Your task to perform on an android device: allow cookies in the chrome app Image 0: 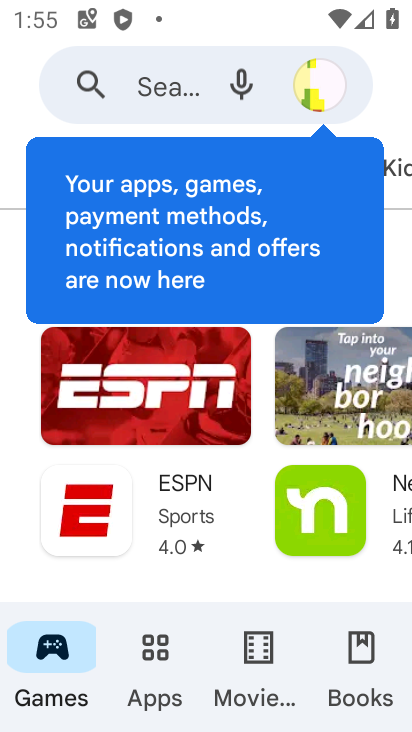
Step 0: press home button
Your task to perform on an android device: allow cookies in the chrome app Image 1: 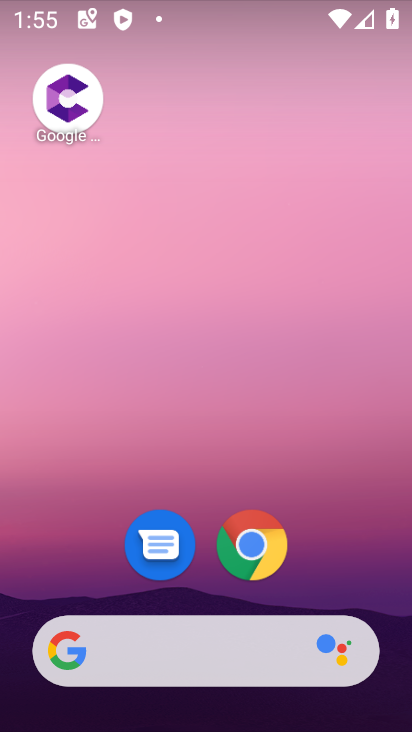
Step 1: click (251, 542)
Your task to perform on an android device: allow cookies in the chrome app Image 2: 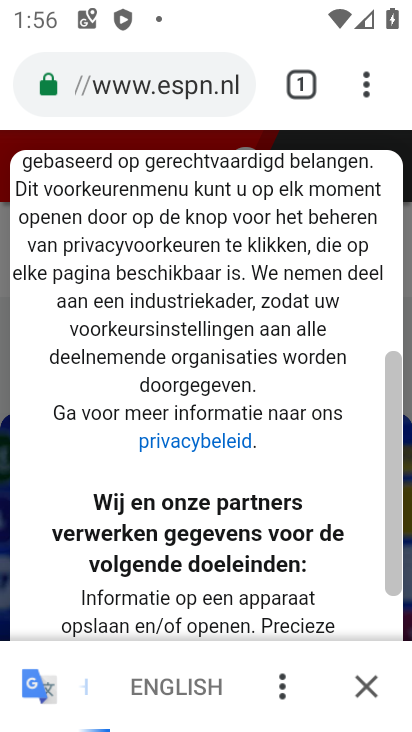
Step 2: click (361, 85)
Your task to perform on an android device: allow cookies in the chrome app Image 3: 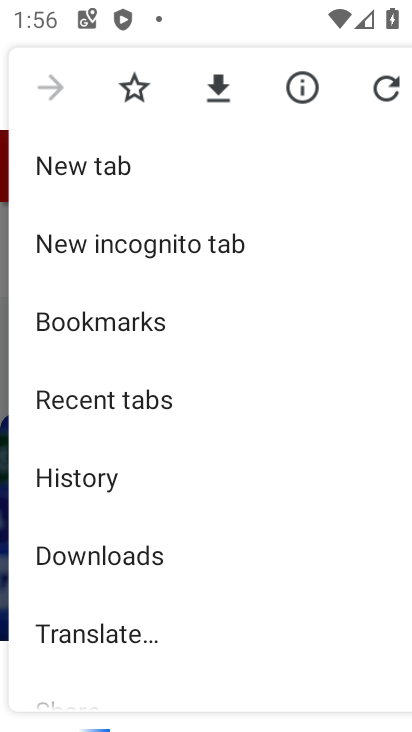
Step 3: drag from (127, 589) to (198, 164)
Your task to perform on an android device: allow cookies in the chrome app Image 4: 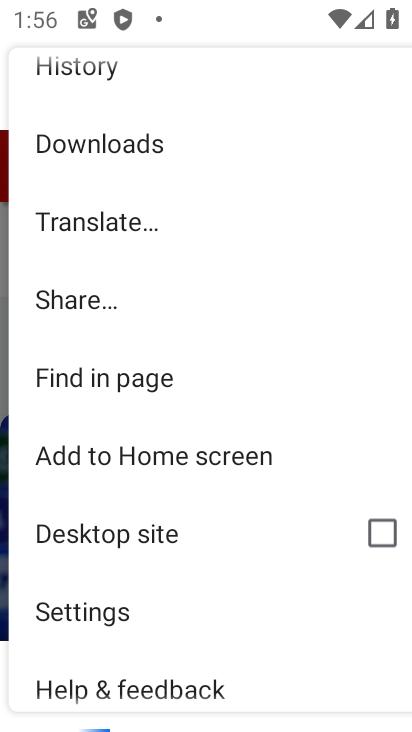
Step 4: click (103, 617)
Your task to perform on an android device: allow cookies in the chrome app Image 5: 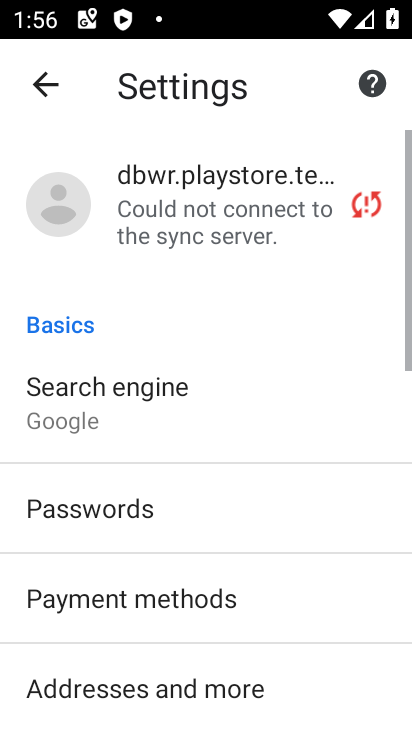
Step 5: drag from (200, 546) to (259, 44)
Your task to perform on an android device: allow cookies in the chrome app Image 6: 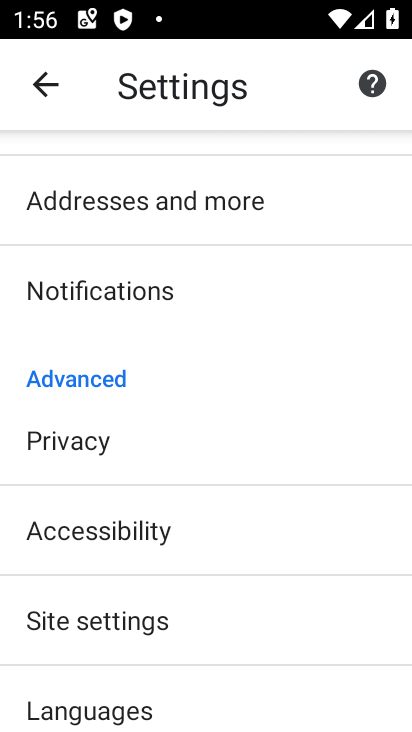
Step 6: drag from (170, 542) to (217, 157)
Your task to perform on an android device: allow cookies in the chrome app Image 7: 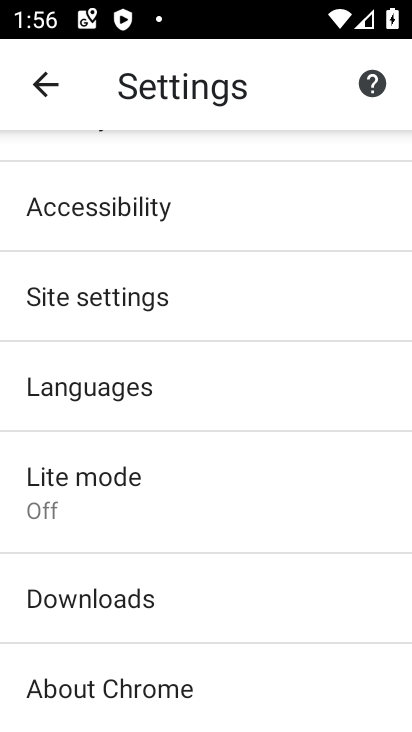
Step 7: click (125, 297)
Your task to perform on an android device: allow cookies in the chrome app Image 8: 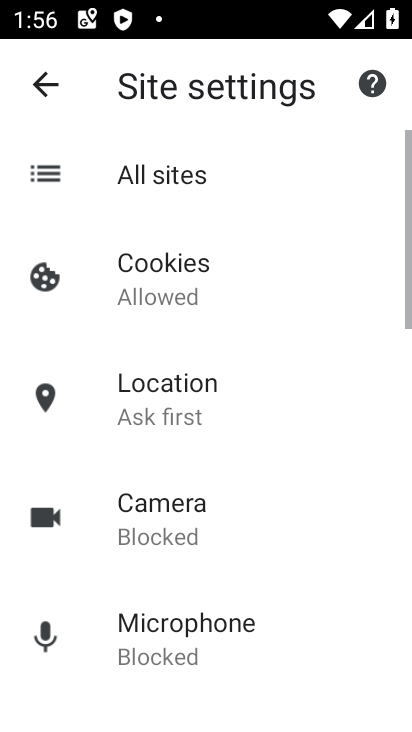
Step 8: click (186, 305)
Your task to perform on an android device: allow cookies in the chrome app Image 9: 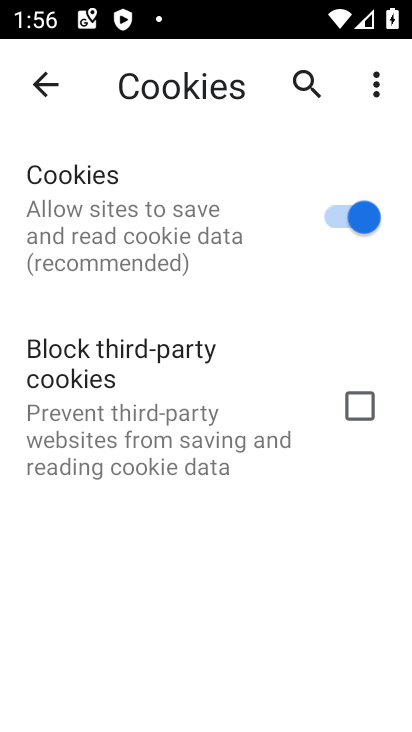
Step 9: task complete